Your task to perform on an android device: Go to Google maps Image 0: 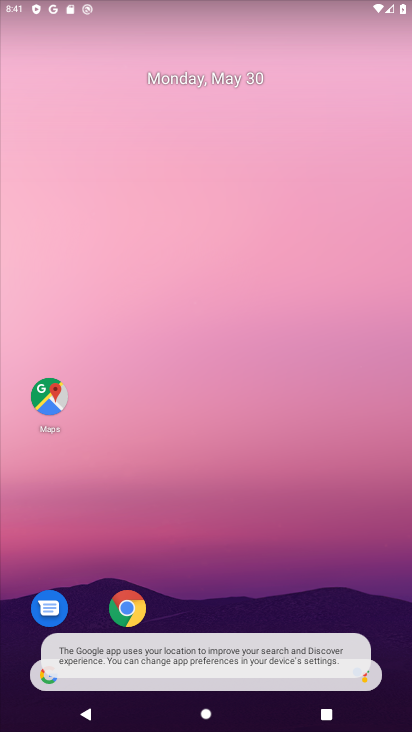
Step 0: drag from (242, 611) to (320, 62)
Your task to perform on an android device: Go to Google maps Image 1: 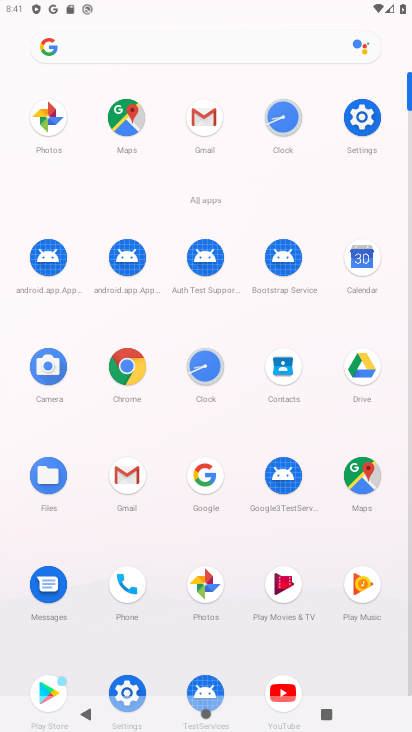
Step 1: click (361, 482)
Your task to perform on an android device: Go to Google maps Image 2: 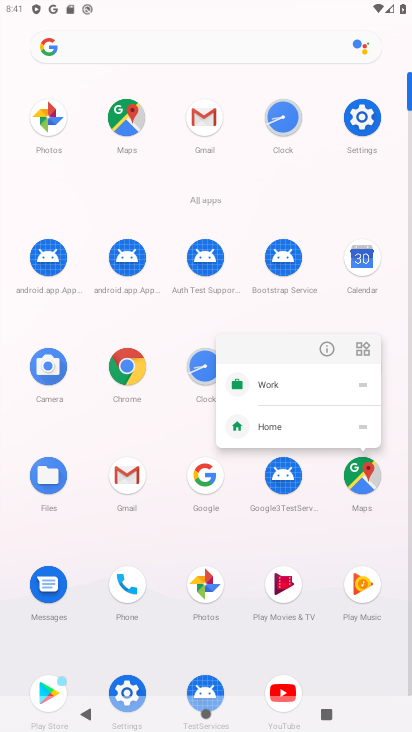
Step 2: click (368, 479)
Your task to perform on an android device: Go to Google maps Image 3: 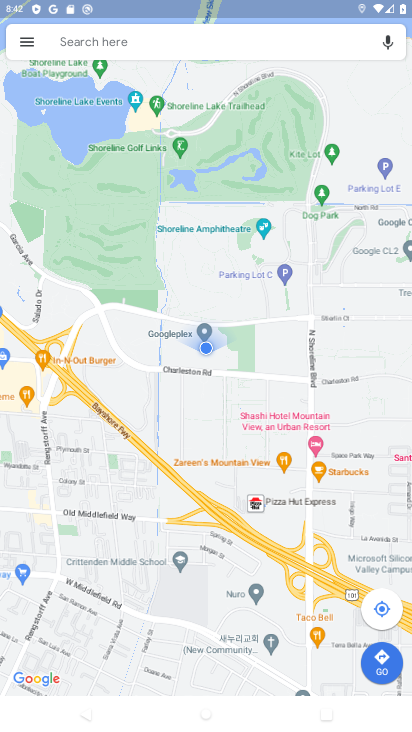
Step 3: task complete